Your task to perform on an android device: allow notifications from all sites in the chrome app Image 0: 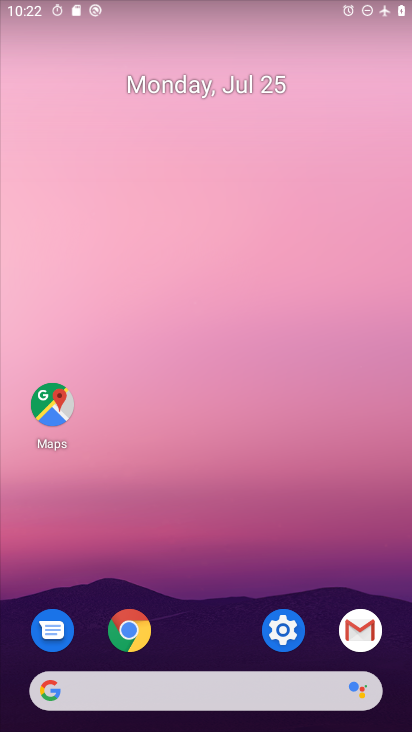
Step 0: click (157, 620)
Your task to perform on an android device: allow notifications from all sites in the chrome app Image 1: 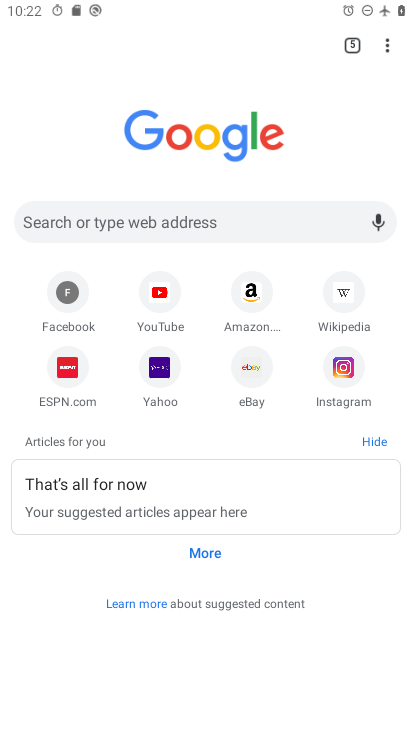
Step 1: click (390, 53)
Your task to perform on an android device: allow notifications from all sites in the chrome app Image 2: 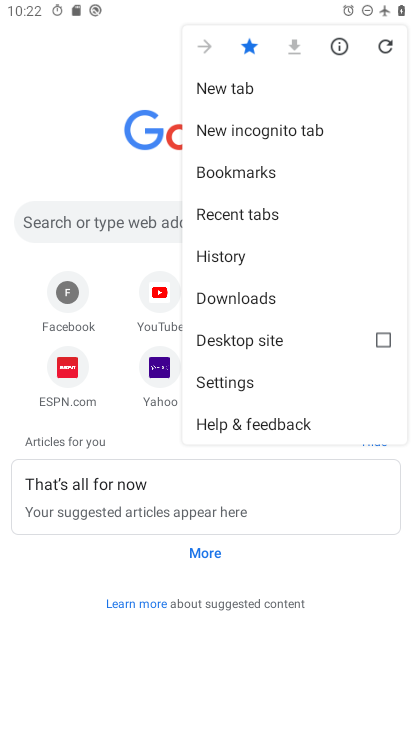
Step 2: click (244, 381)
Your task to perform on an android device: allow notifications from all sites in the chrome app Image 3: 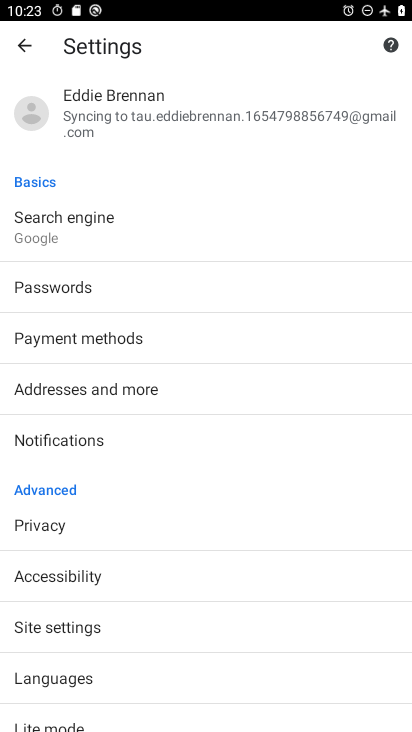
Step 3: click (55, 627)
Your task to perform on an android device: allow notifications from all sites in the chrome app Image 4: 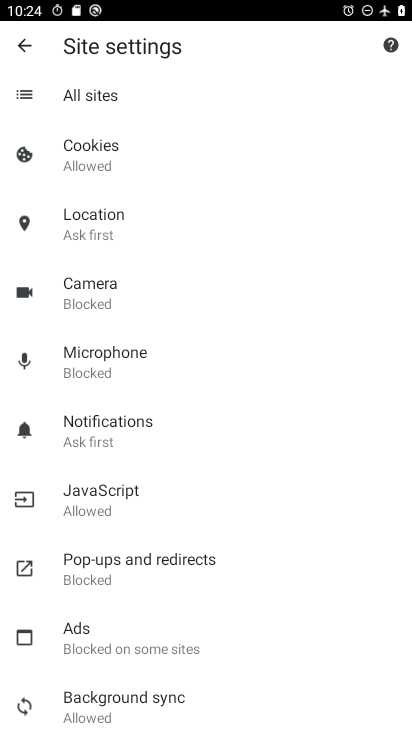
Step 4: click (132, 418)
Your task to perform on an android device: allow notifications from all sites in the chrome app Image 5: 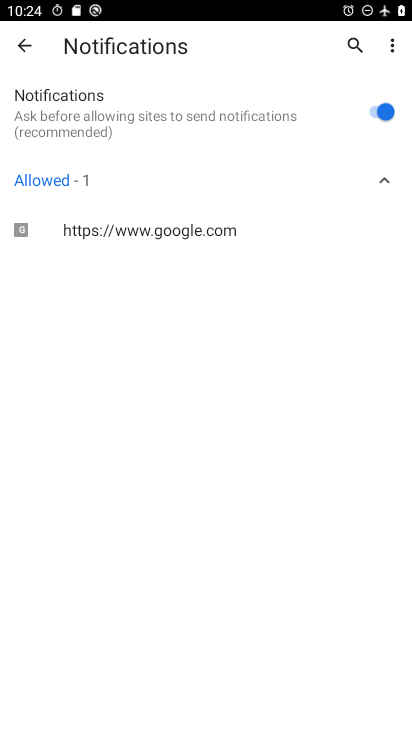
Step 5: click (229, 118)
Your task to perform on an android device: allow notifications from all sites in the chrome app Image 6: 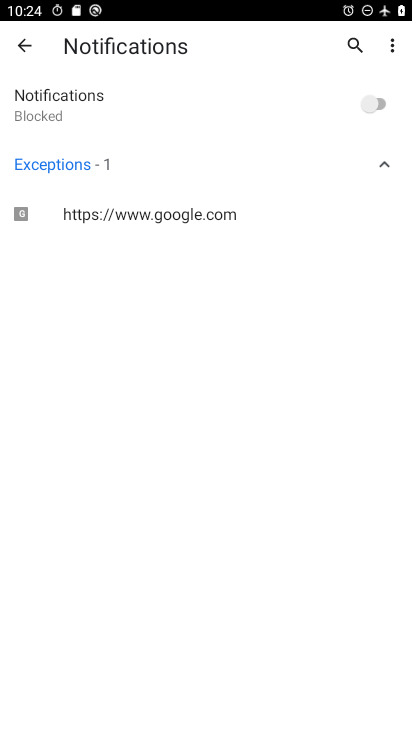
Step 6: click (228, 118)
Your task to perform on an android device: allow notifications from all sites in the chrome app Image 7: 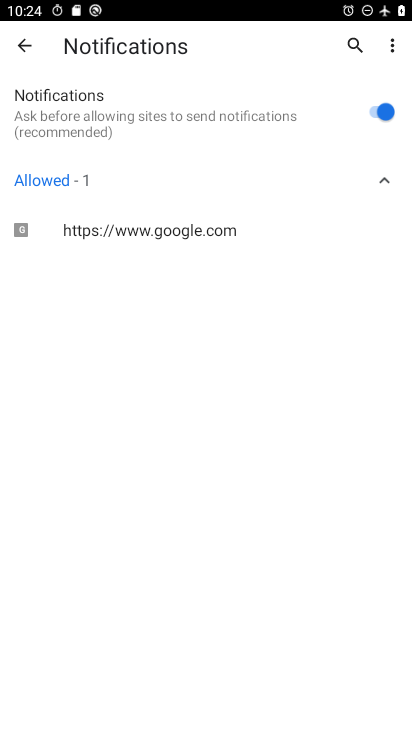
Step 7: task complete